Your task to perform on an android device: create a new album in the google photos Image 0: 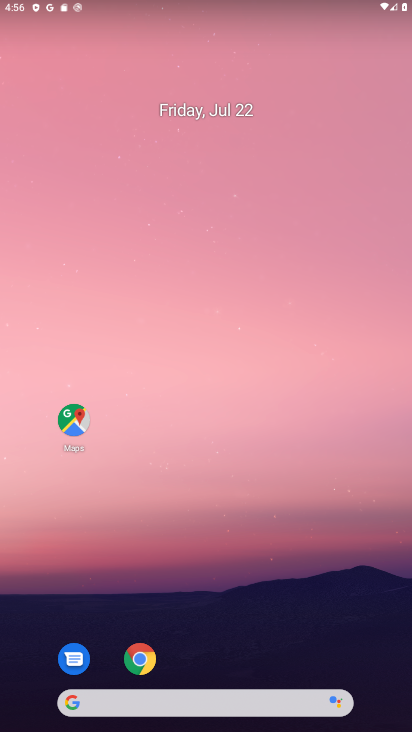
Step 0: drag from (220, 662) to (227, 89)
Your task to perform on an android device: create a new album in the google photos Image 1: 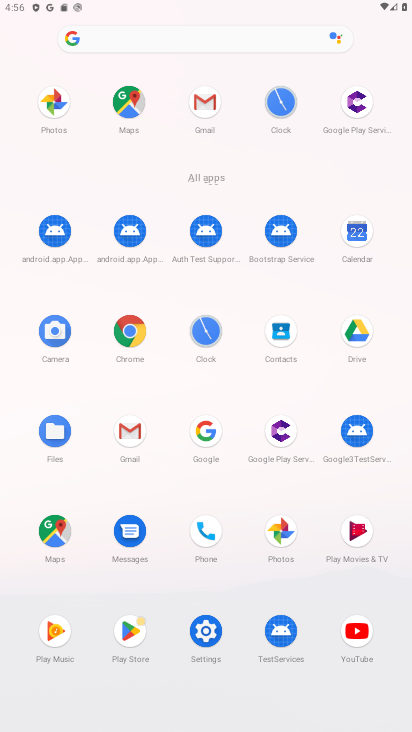
Step 1: click (272, 528)
Your task to perform on an android device: create a new album in the google photos Image 2: 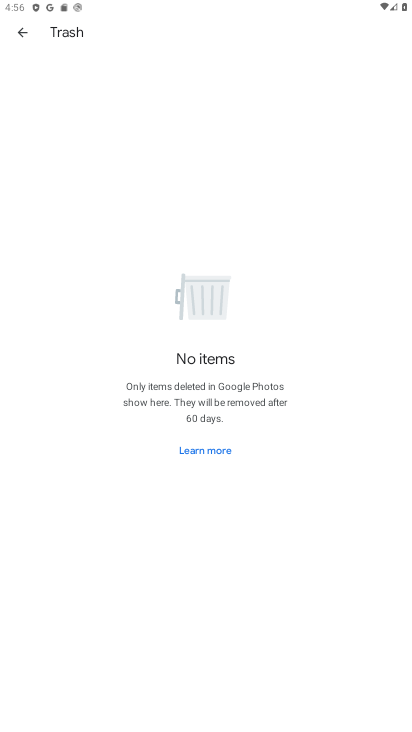
Step 2: click (23, 34)
Your task to perform on an android device: create a new album in the google photos Image 3: 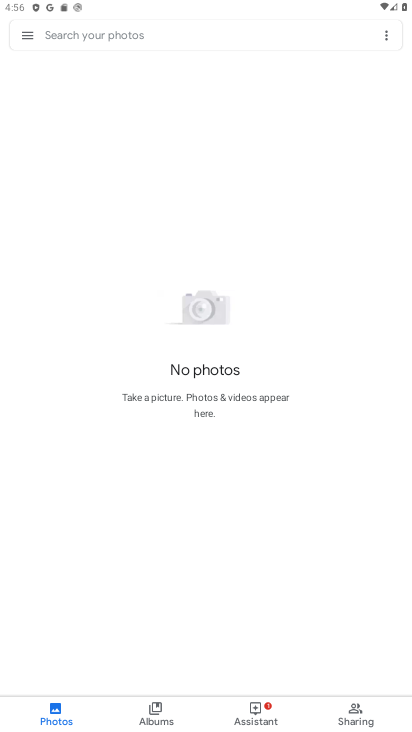
Step 3: click (385, 28)
Your task to perform on an android device: create a new album in the google photos Image 4: 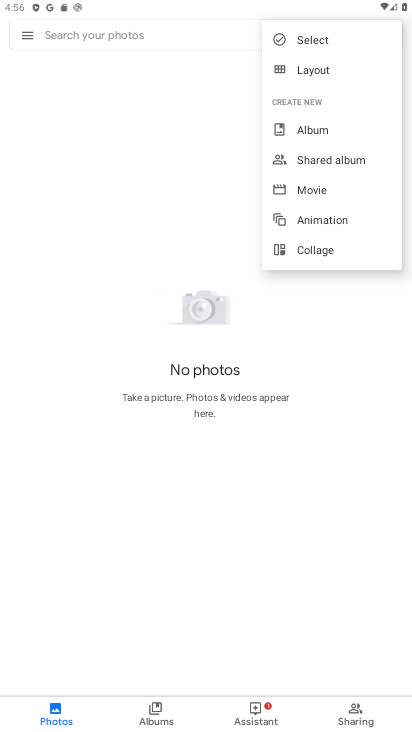
Step 4: click (311, 121)
Your task to perform on an android device: create a new album in the google photos Image 5: 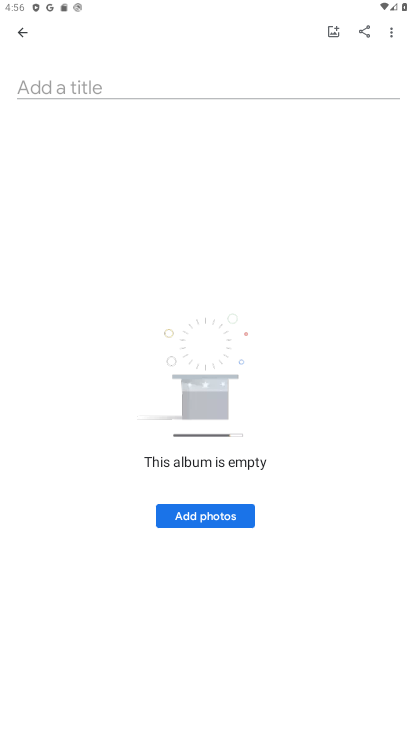
Step 5: task complete